Your task to perform on an android device: open a bookmark in the chrome app Image 0: 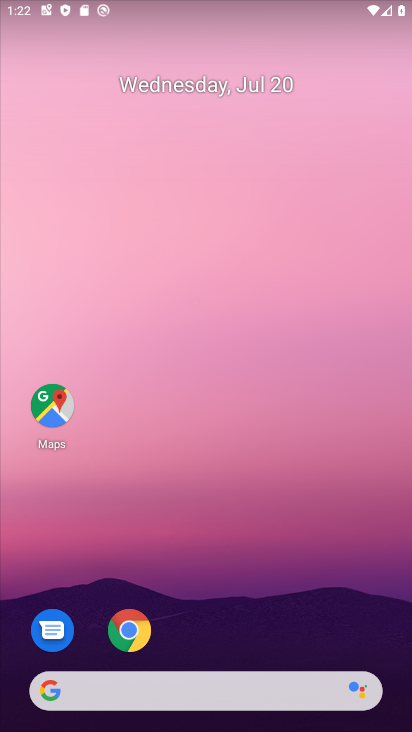
Step 0: drag from (251, 596) to (237, 145)
Your task to perform on an android device: open a bookmark in the chrome app Image 1: 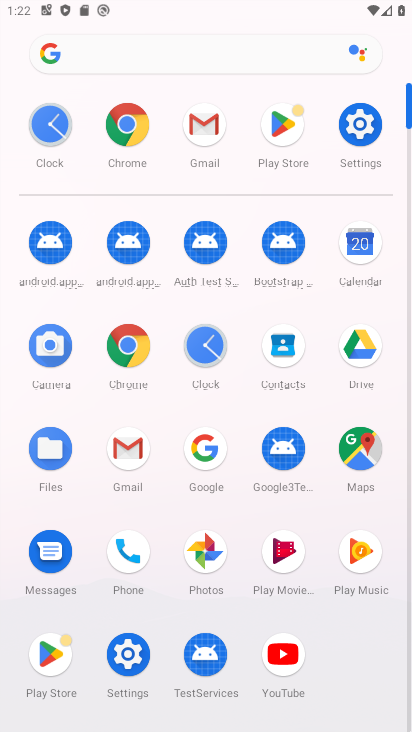
Step 1: click (126, 122)
Your task to perform on an android device: open a bookmark in the chrome app Image 2: 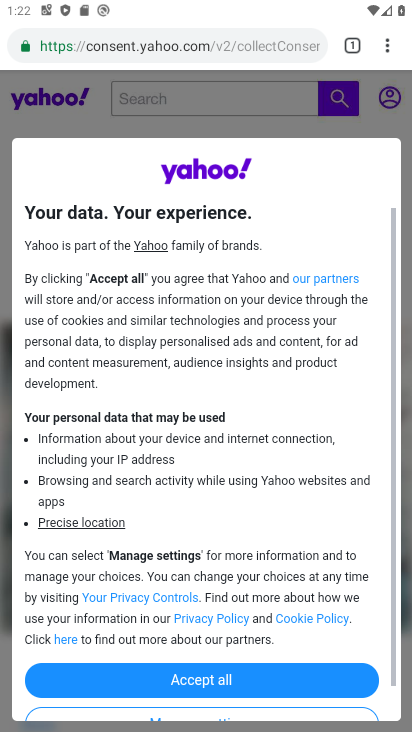
Step 2: drag from (382, 35) to (250, 229)
Your task to perform on an android device: open a bookmark in the chrome app Image 3: 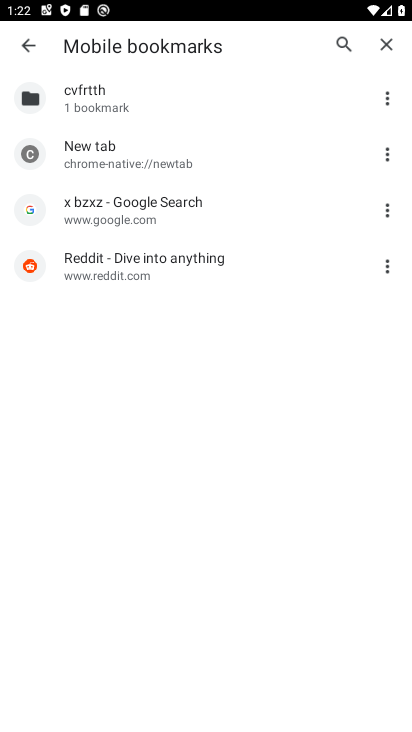
Step 3: click (171, 161)
Your task to perform on an android device: open a bookmark in the chrome app Image 4: 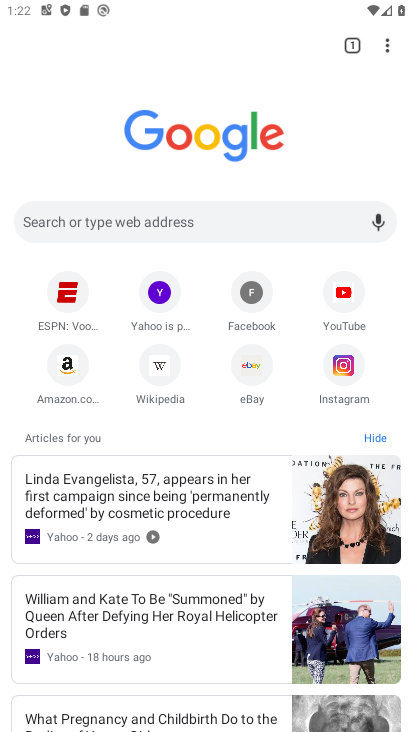
Step 4: task complete